Your task to perform on an android device: Find coffee shops on Maps Image 0: 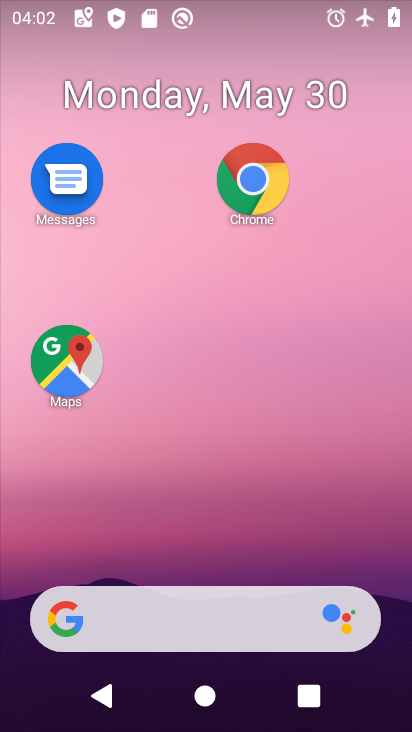
Step 0: drag from (197, 479) to (249, 0)
Your task to perform on an android device: Find coffee shops on Maps Image 1: 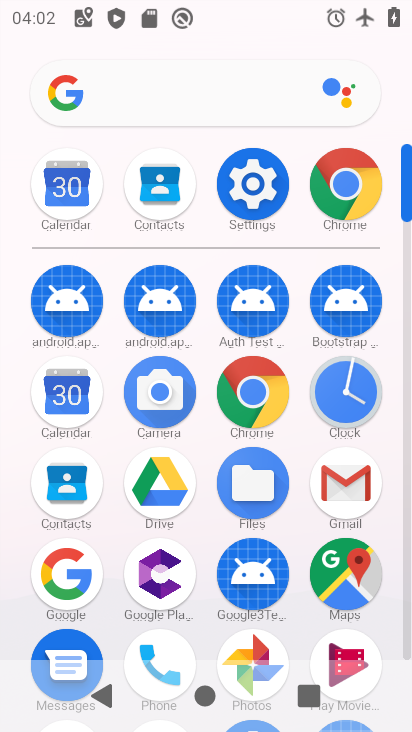
Step 1: click (344, 573)
Your task to perform on an android device: Find coffee shops on Maps Image 2: 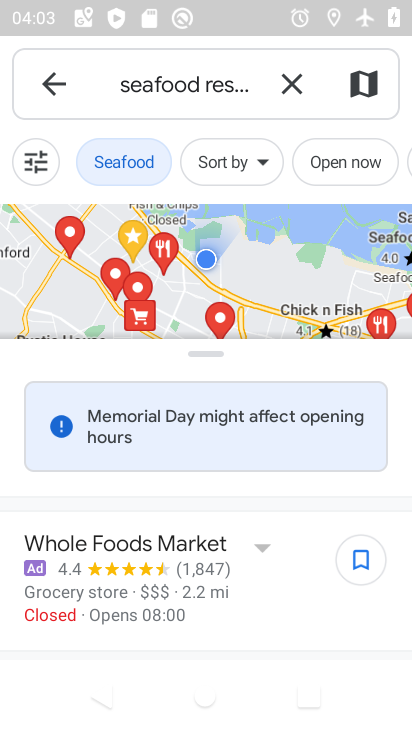
Step 2: click (293, 86)
Your task to perform on an android device: Find coffee shops on Maps Image 3: 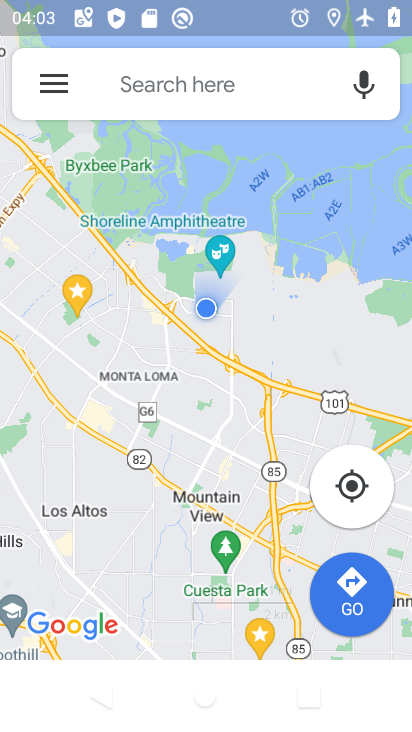
Step 3: click (200, 72)
Your task to perform on an android device: Find coffee shops on Maps Image 4: 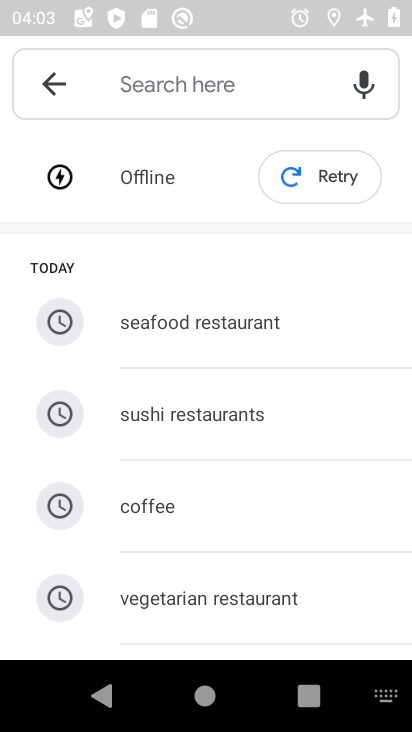
Step 4: type "coffee shops"
Your task to perform on an android device: Find coffee shops on Maps Image 5: 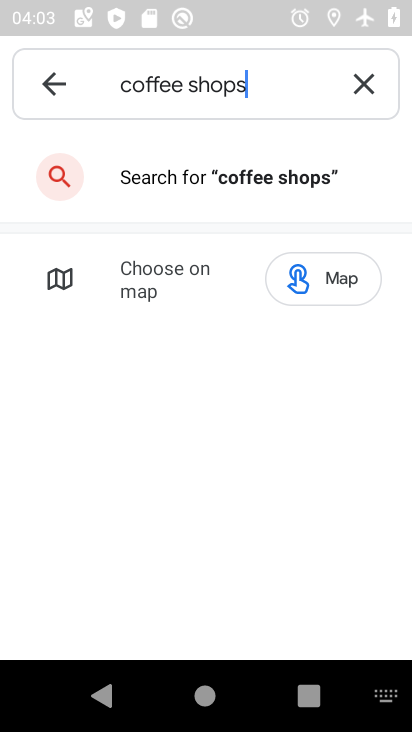
Step 5: task complete